Your task to perform on an android device: Open the stopwatch Image 0: 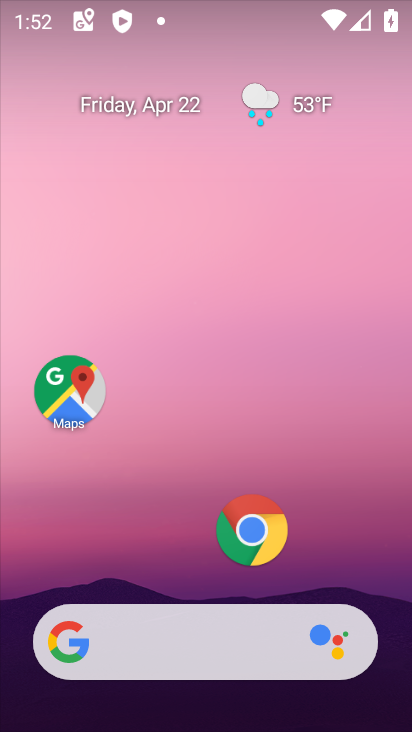
Step 0: drag from (185, 658) to (132, 95)
Your task to perform on an android device: Open the stopwatch Image 1: 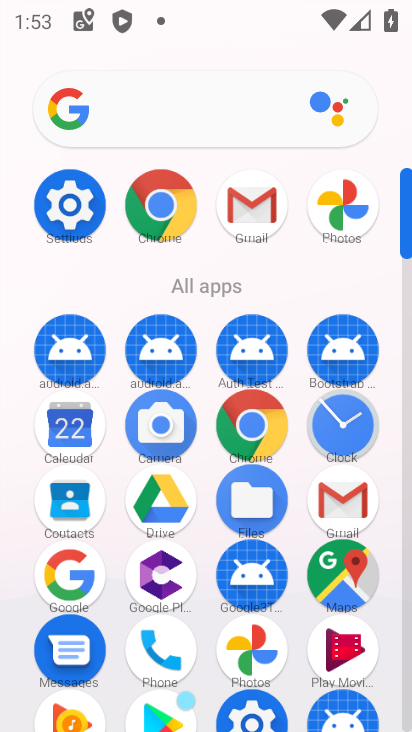
Step 1: click (336, 432)
Your task to perform on an android device: Open the stopwatch Image 2: 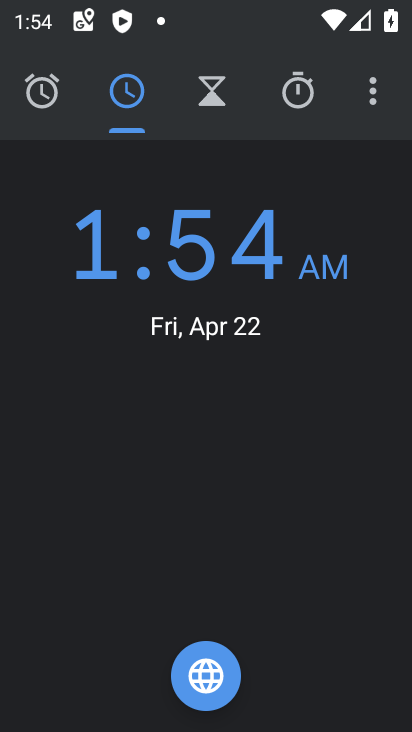
Step 2: click (296, 99)
Your task to perform on an android device: Open the stopwatch Image 3: 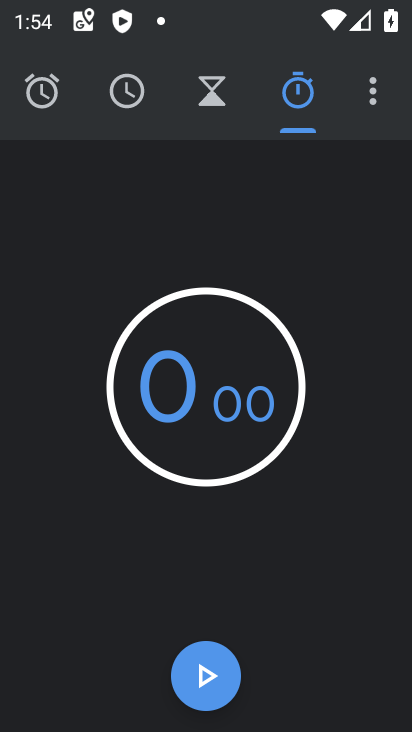
Step 3: task complete